Your task to perform on an android device: Is it going to rain this weekend? Image 0: 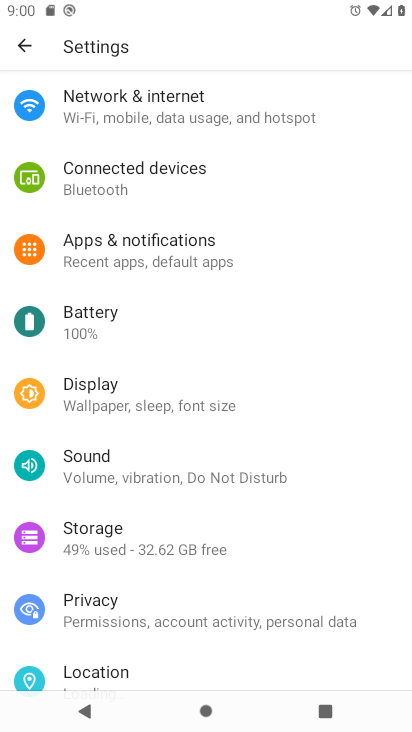
Step 0: press home button
Your task to perform on an android device: Is it going to rain this weekend? Image 1: 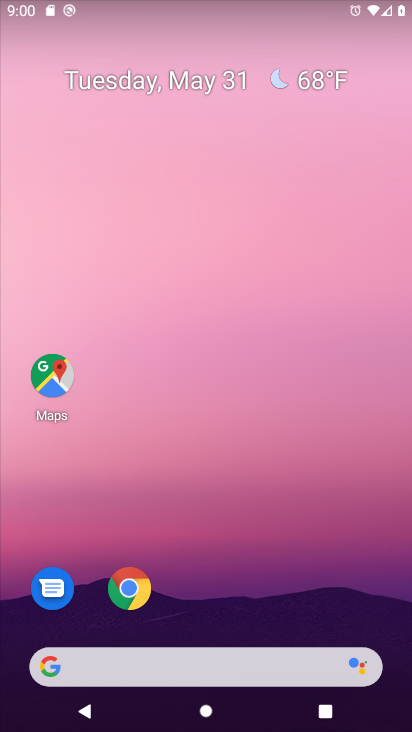
Step 1: click (303, 74)
Your task to perform on an android device: Is it going to rain this weekend? Image 2: 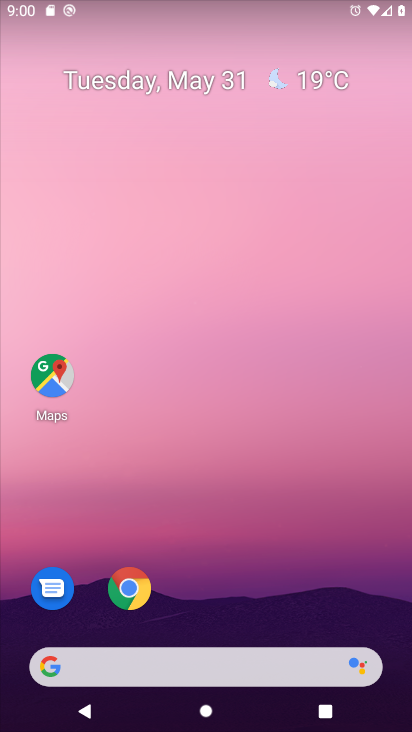
Step 2: click (281, 86)
Your task to perform on an android device: Is it going to rain this weekend? Image 3: 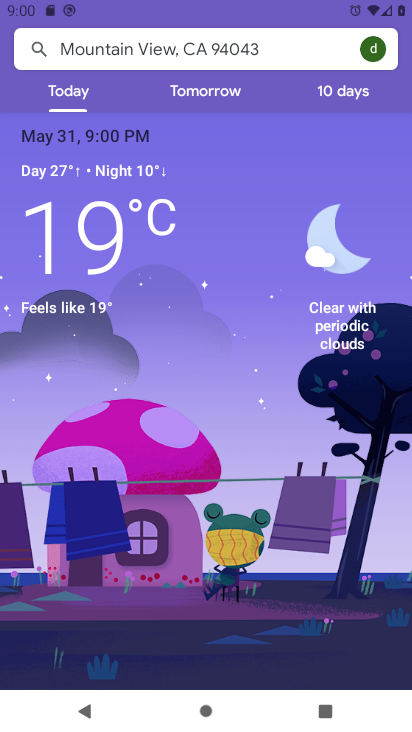
Step 3: click (344, 96)
Your task to perform on an android device: Is it going to rain this weekend? Image 4: 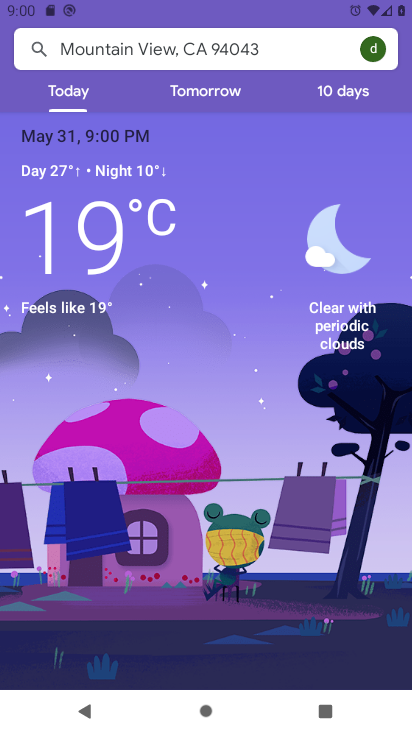
Step 4: click (336, 95)
Your task to perform on an android device: Is it going to rain this weekend? Image 5: 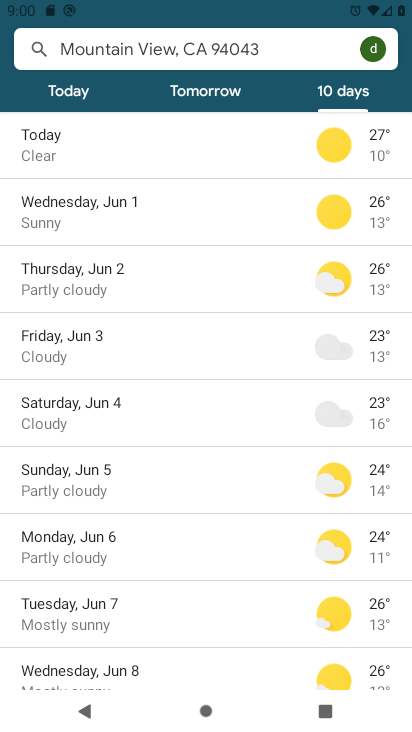
Step 5: click (153, 414)
Your task to perform on an android device: Is it going to rain this weekend? Image 6: 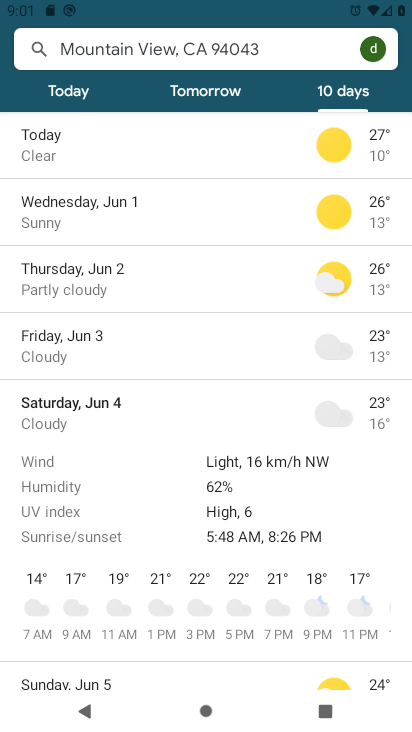
Step 6: task complete